Your task to perform on an android device: open sync settings in chrome Image 0: 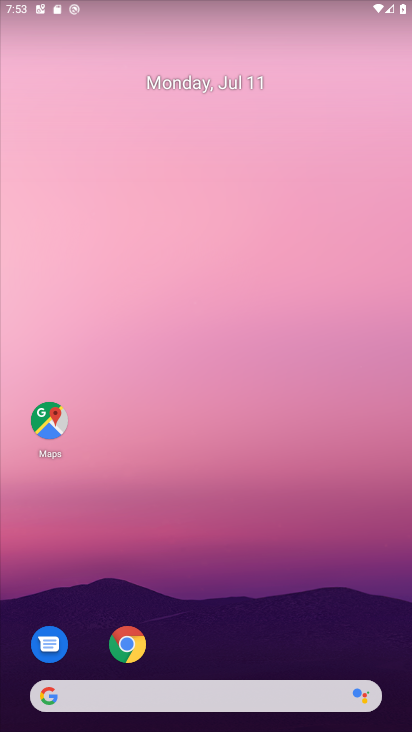
Step 0: drag from (180, 660) to (178, 508)
Your task to perform on an android device: open sync settings in chrome Image 1: 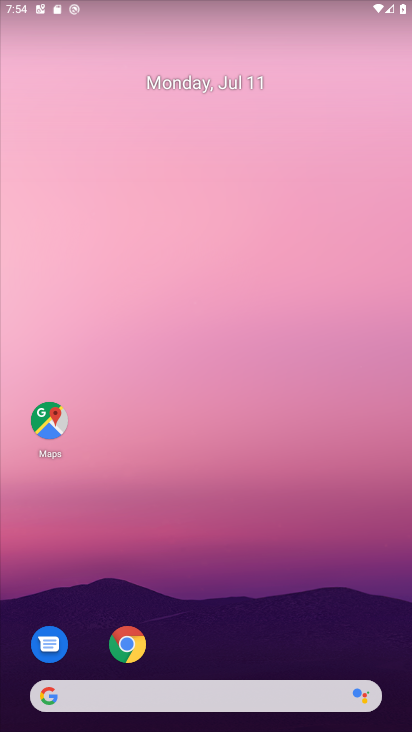
Step 1: click (123, 648)
Your task to perform on an android device: open sync settings in chrome Image 2: 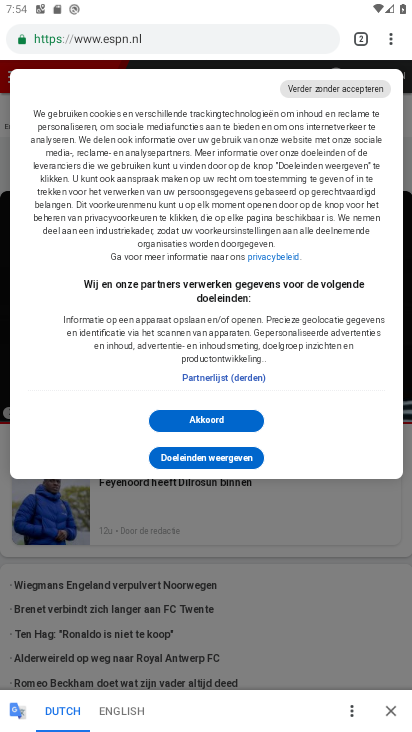
Step 2: click (390, 37)
Your task to perform on an android device: open sync settings in chrome Image 3: 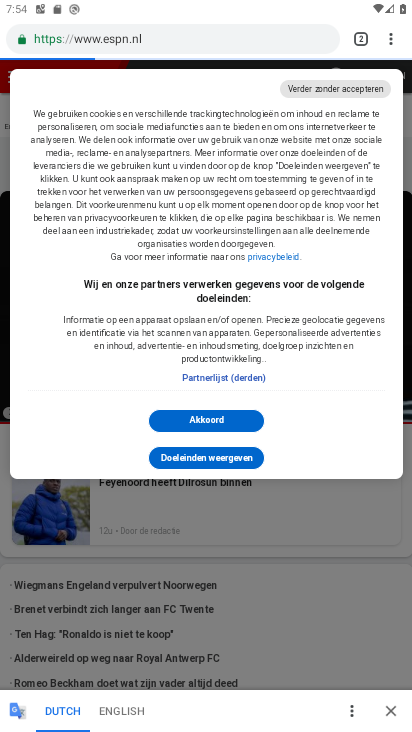
Step 3: click (390, 37)
Your task to perform on an android device: open sync settings in chrome Image 4: 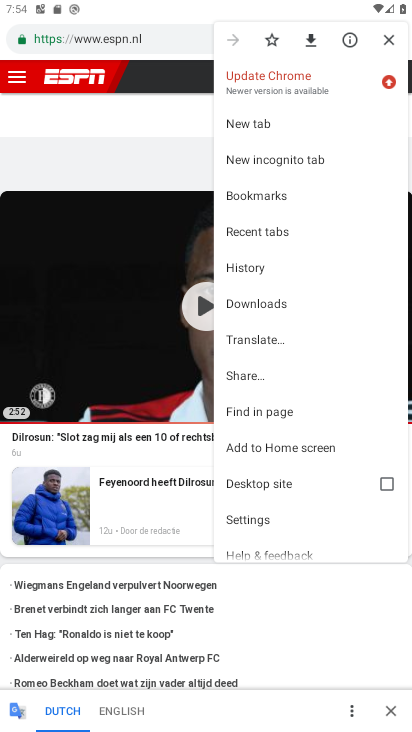
Step 4: click (248, 511)
Your task to perform on an android device: open sync settings in chrome Image 5: 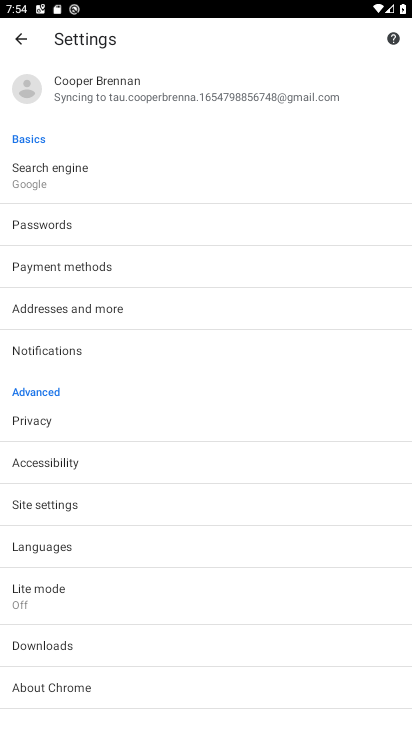
Step 5: click (119, 96)
Your task to perform on an android device: open sync settings in chrome Image 6: 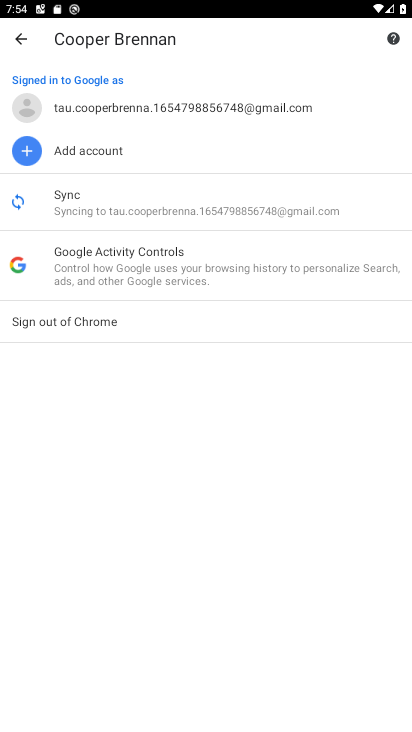
Step 6: click (121, 199)
Your task to perform on an android device: open sync settings in chrome Image 7: 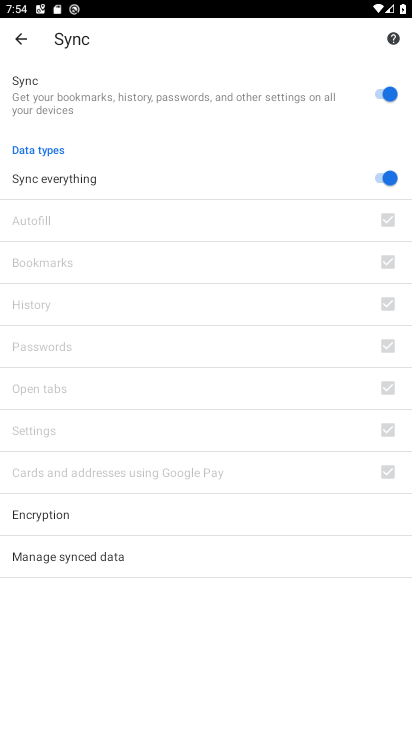
Step 7: task complete